Your task to perform on an android device: toggle data saver in the chrome app Image 0: 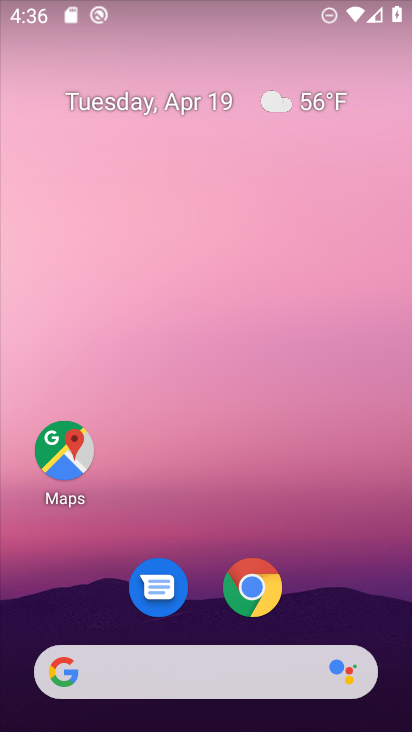
Step 0: click (254, 588)
Your task to perform on an android device: toggle data saver in the chrome app Image 1: 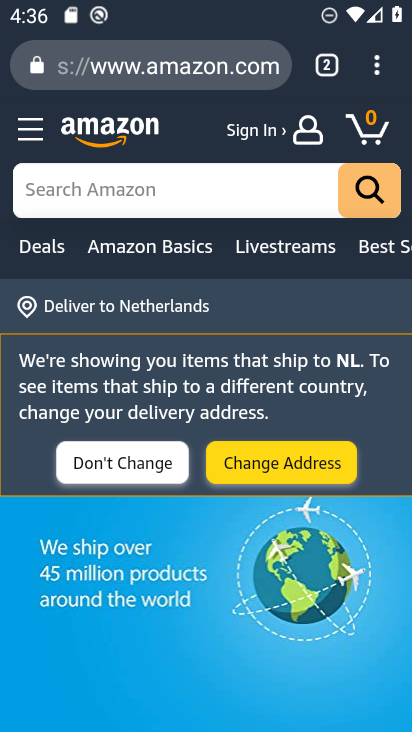
Step 1: click (379, 61)
Your task to perform on an android device: toggle data saver in the chrome app Image 2: 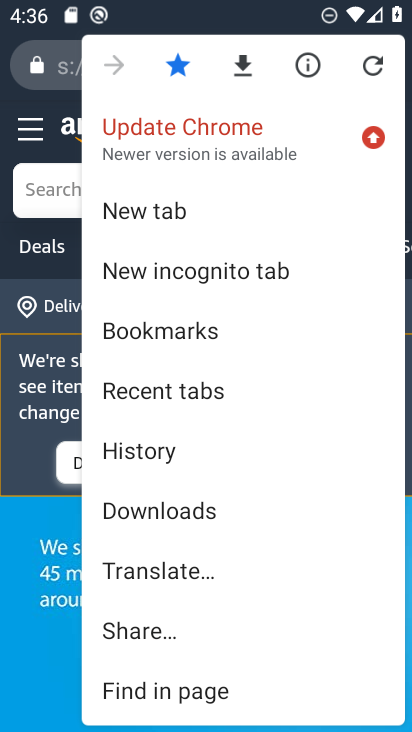
Step 2: drag from (190, 659) to (194, 192)
Your task to perform on an android device: toggle data saver in the chrome app Image 3: 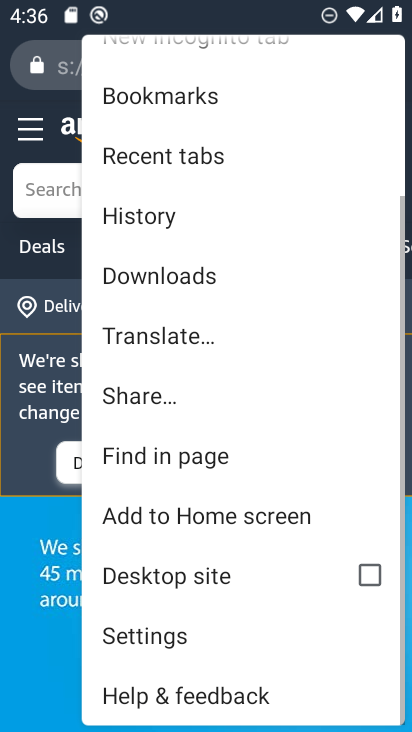
Step 3: click (159, 631)
Your task to perform on an android device: toggle data saver in the chrome app Image 4: 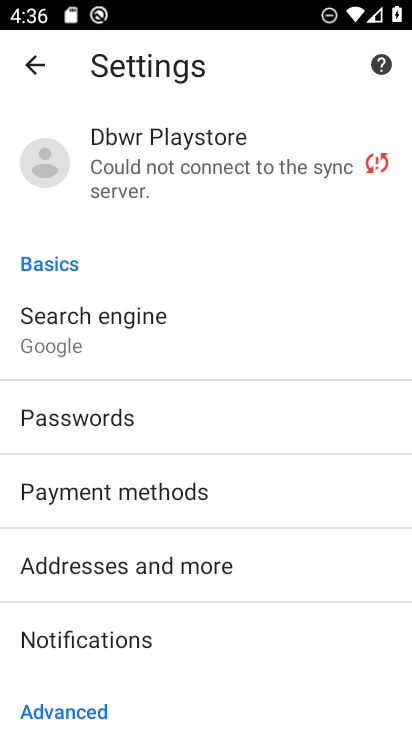
Step 4: drag from (163, 672) to (160, 247)
Your task to perform on an android device: toggle data saver in the chrome app Image 5: 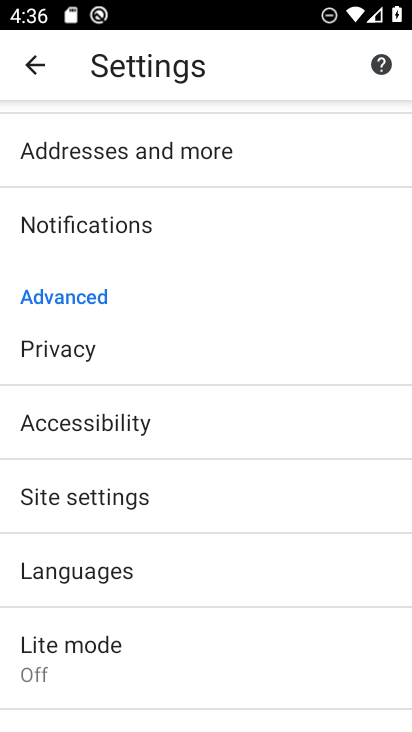
Step 5: click (111, 639)
Your task to perform on an android device: toggle data saver in the chrome app Image 6: 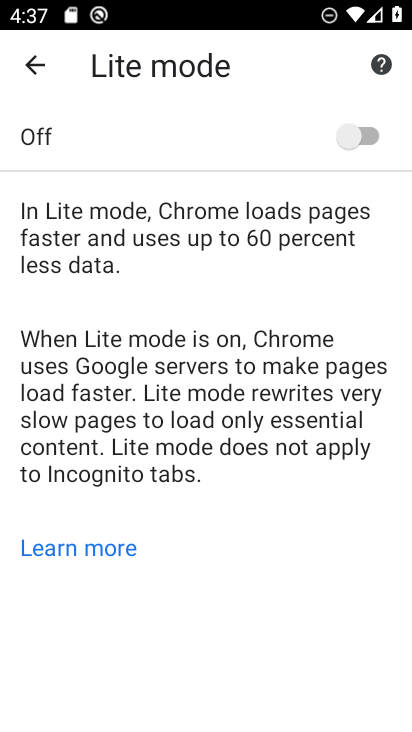
Step 6: click (364, 138)
Your task to perform on an android device: toggle data saver in the chrome app Image 7: 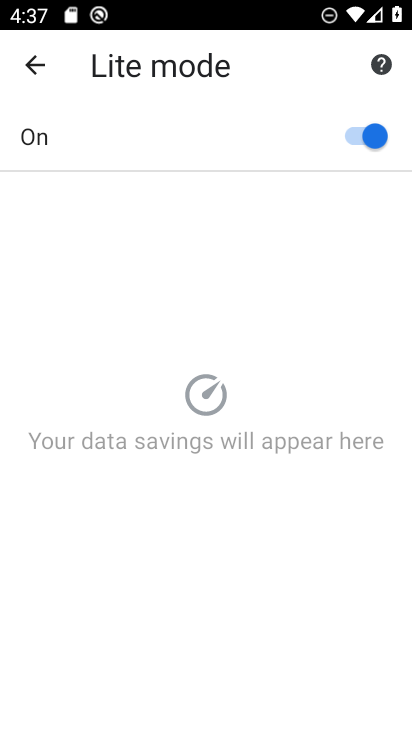
Step 7: task complete